Your task to perform on an android device: Is it going to rain this weekend? Image 0: 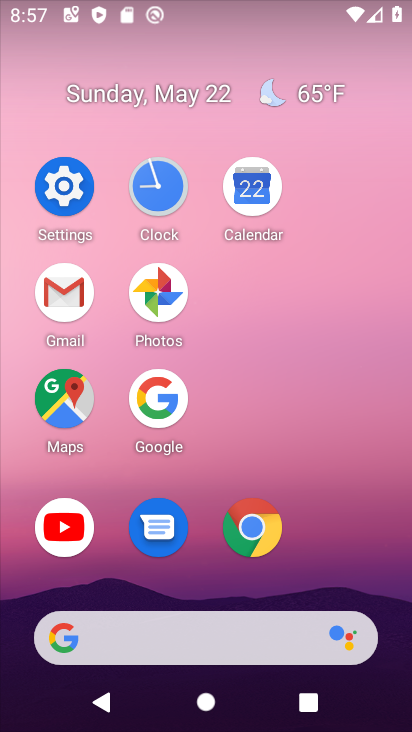
Step 0: click (163, 402)
Your task to perform on an android device: Is it going to rain this weekend? Image 1: 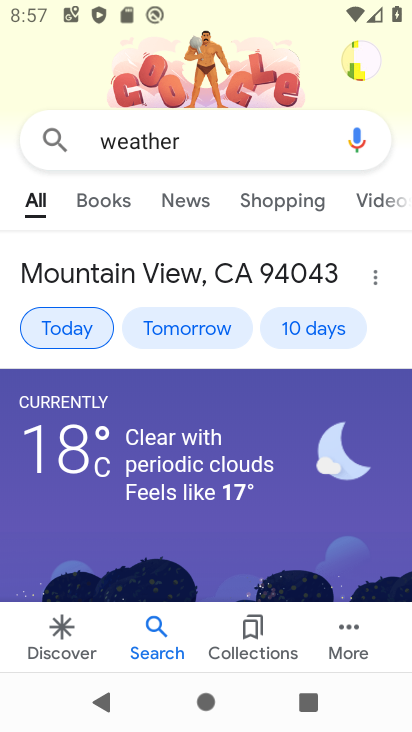
Step 1: click (334, 344)
Your task to perform on an android device: Is it going to rain this weekend? Image 2: 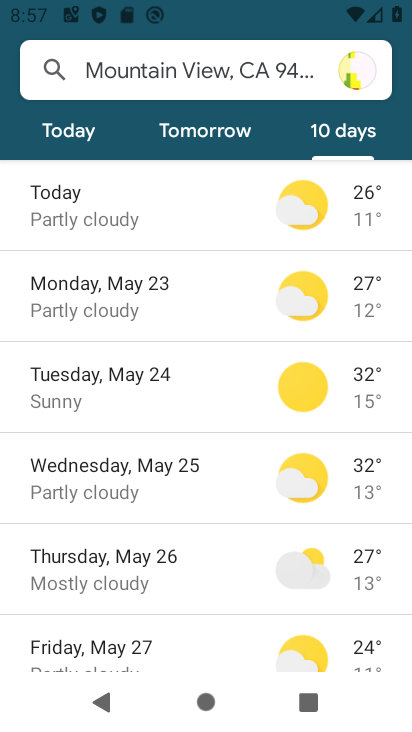
Step 2: drag from (170, 597) to (147, 291)
Your task to perform on an android device: Is it going to rain this weekend? Image 3: 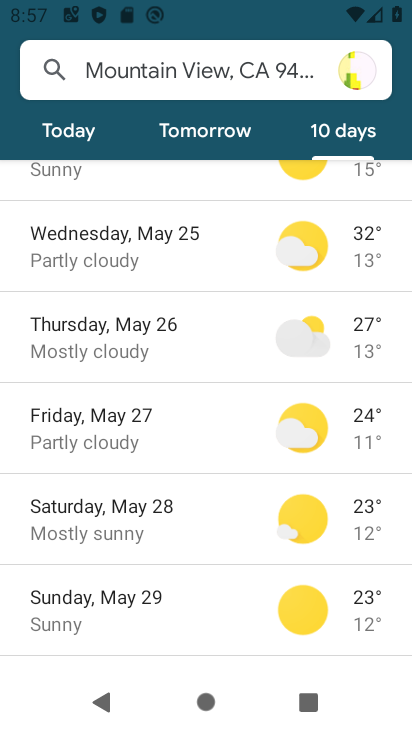
Step 3: click (131, 666)
Your task to perform on an android device: Is it going to rain this weekend? Image 4: 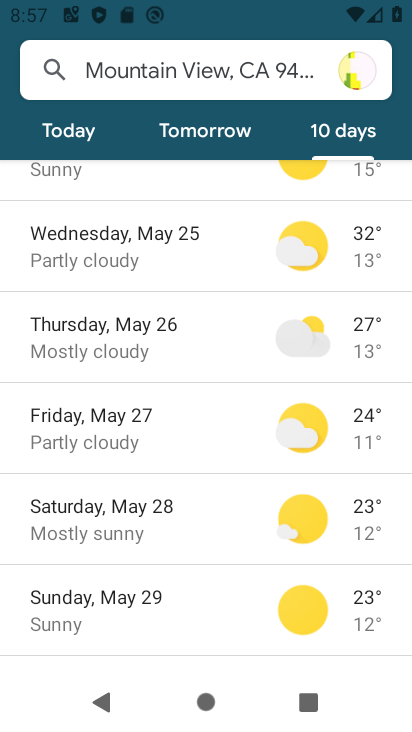
Step 4: click (171, 499)
Your task to perform on an android device: Is it going to rain this weekend? Image 5: 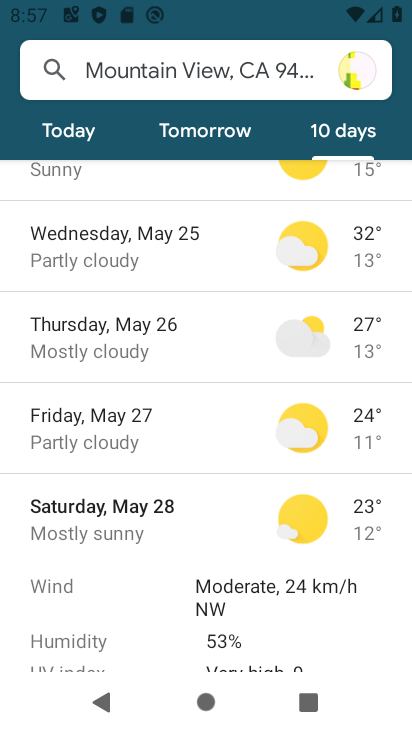
Step 5: task complete